Your task to perform on an android device: turn off javascript in the chrome app Image 0: 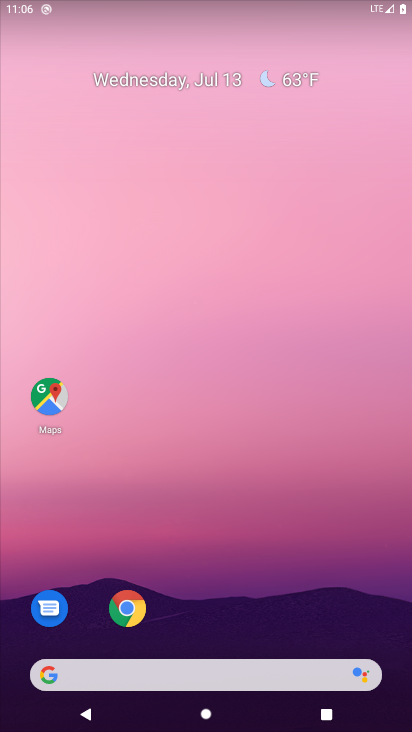
Step 0: click (142, 608)
Your task to perform on an android device: turn off javascript in the chrome app Image 1: 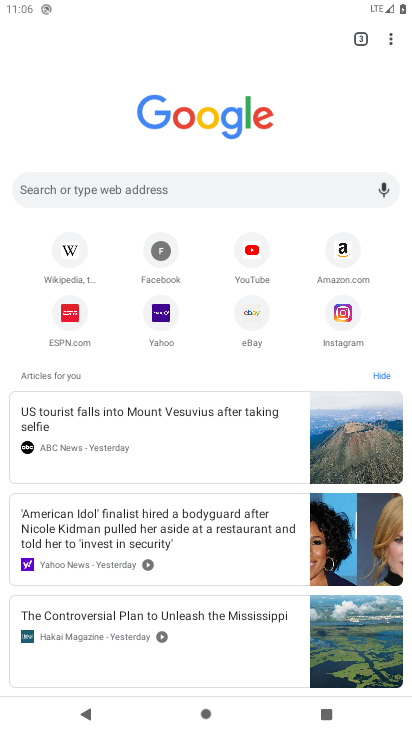
Step 1: drag from (394, 36) to (261, 340)
Your task to perform on an android device: turn off javascript in the chrome app Image 2: 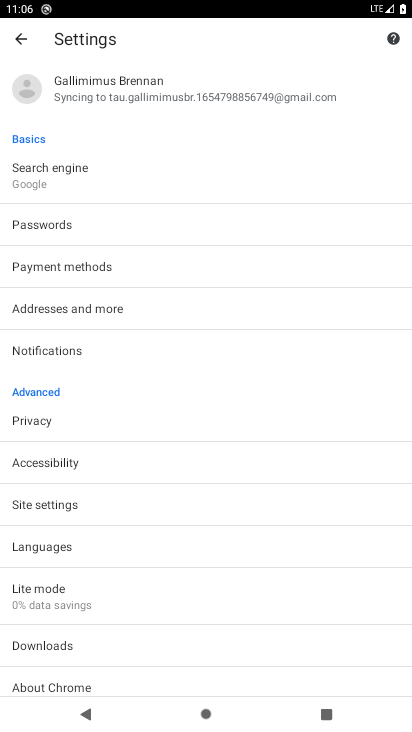
Step 2: click (51, 509)
Your task to perform on an android device: turn off javascript in the chrome app Image 3: 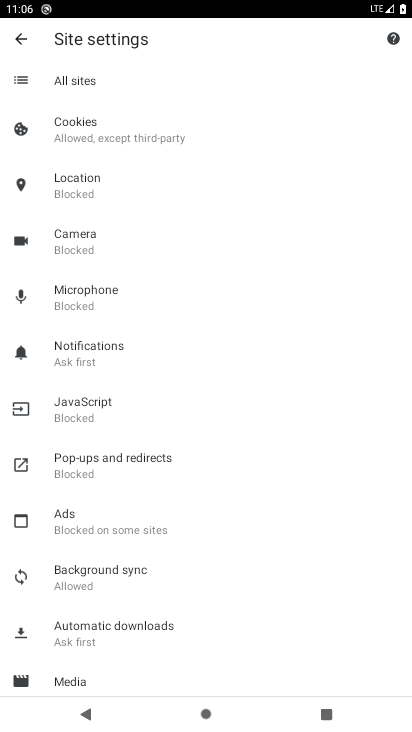
Step 3: click (86, 393)
Your task to perform on an android device: turn off javascript in the chrome app Image 4: 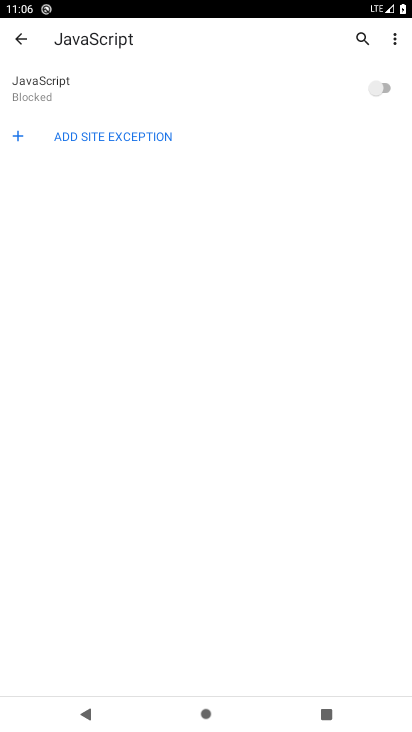
Step 4: task complete